Your task to perform on an android device: Go to network settings Image 0: 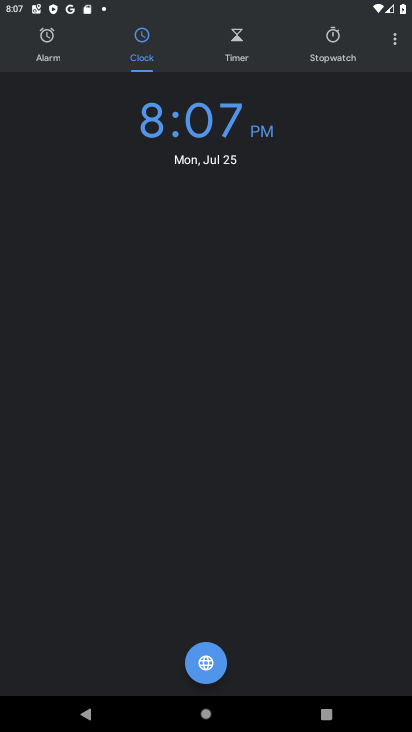
Step 0: press home button
Your task to perform on an android device: Go to network settings Image 1: 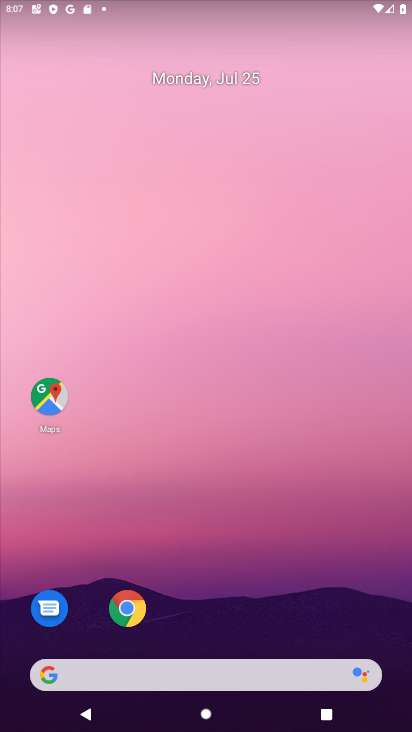
Step 1: drag from (263, 679) to (241, 145)
Your task to perform on an android device: Go to network settings Image 2: 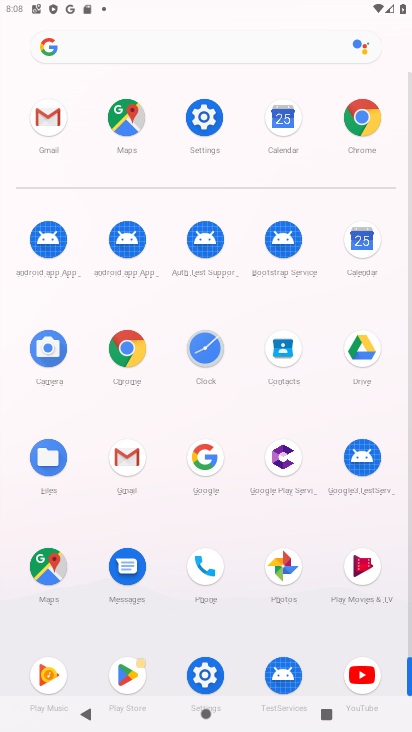
Step 2: click (205, 126)
Your task to perform on an android device: Go to network settings Image 3: 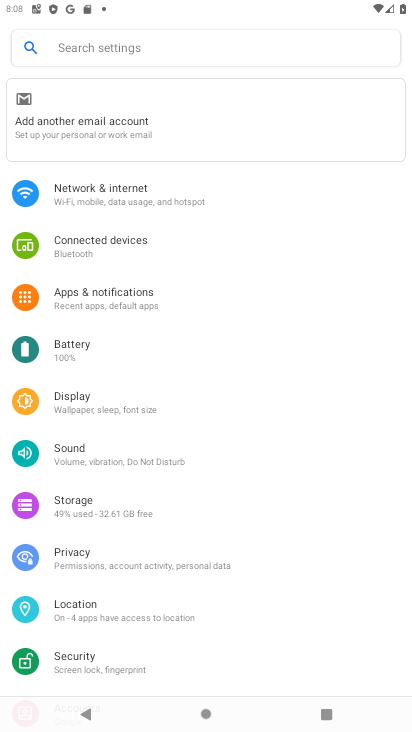
Step 3: click (145, 200)
Your task to perform on an android device: Go to network settings Image 4: 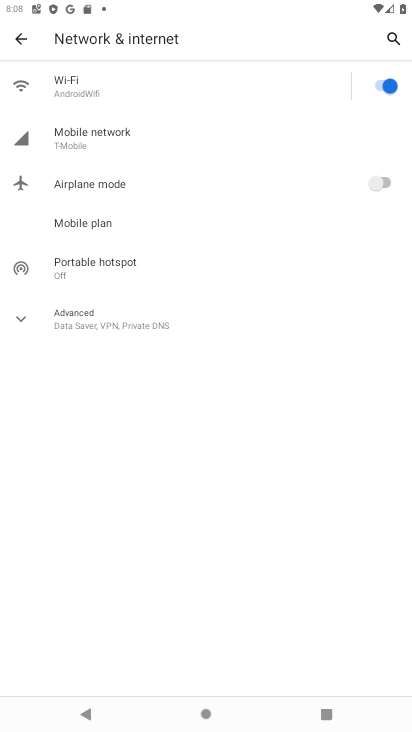
Step 4: click (151, 142)
Your task to perform on an android device: Go to network settings Image 5: 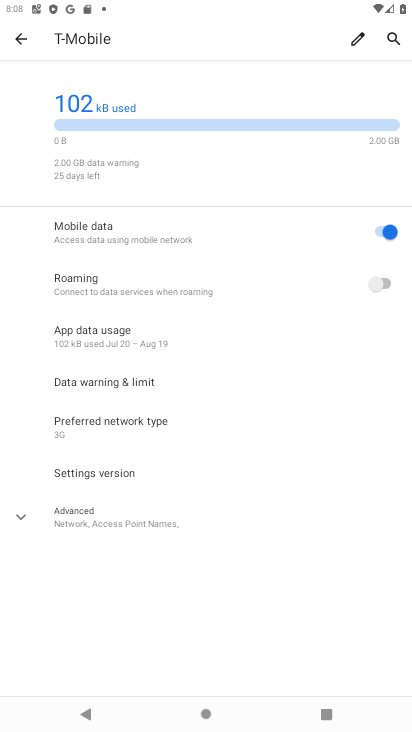
Step 5: task complete